Your task to perform on an android device: When is my next appointment? Image 0: 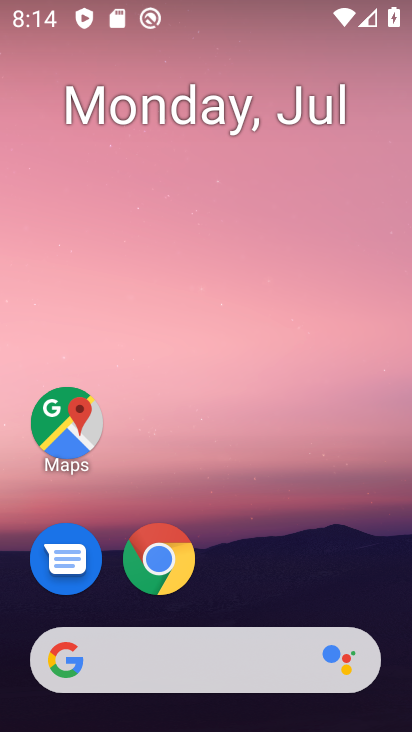
Step 0: drag from (354, 578) to (284, 52)
Your task to perform on an android device: When is my next appointment? Image 1: 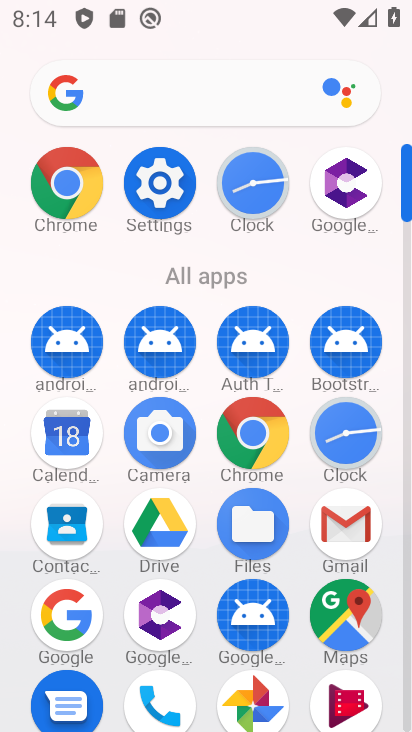
Step 1: click (51, 417)
Your task to perform on an android device: When is my next appointment? Image 2: 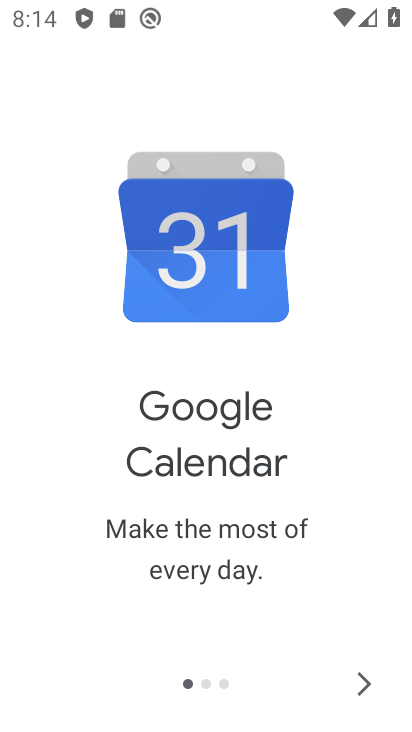
Step 2: click (362, 687)
Your task to perform on an android device: When is my next appointment? Image 3: 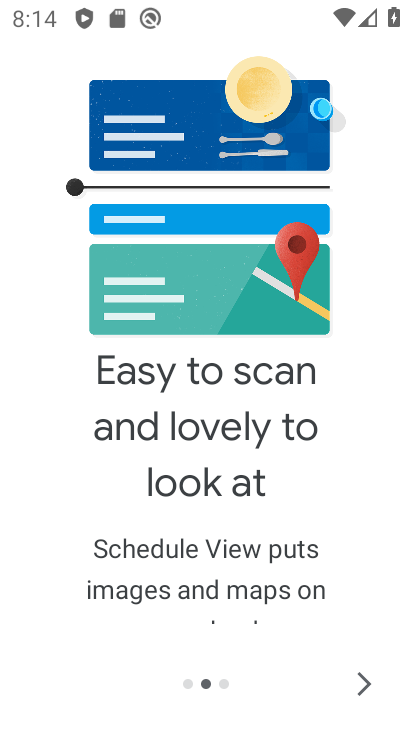
Step 3: click (362, 687)
Your task to perform on an android device: When is my next appointment? Image 4: 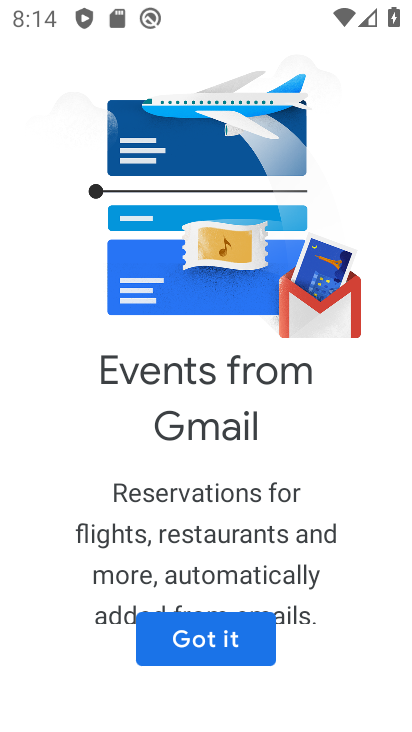
Step 4: click (213, 644)
Your task to perform on an android device: When is my next appointment? Image 5: 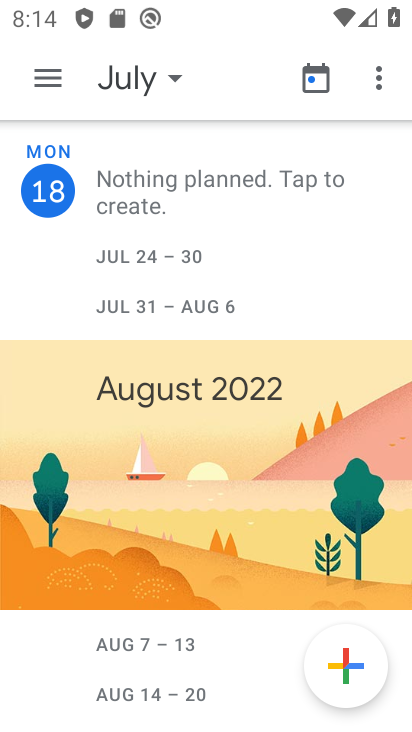
Step 5: click (59, 88)
Your task to perform on an android device: When is my next appointment? Image 6: 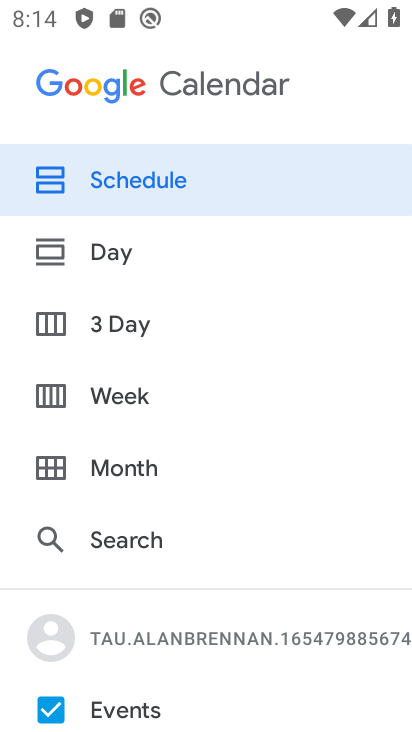
Step 6: click (110, 164)
Your task to perform on an android device: When is my next appointment? Image 7: 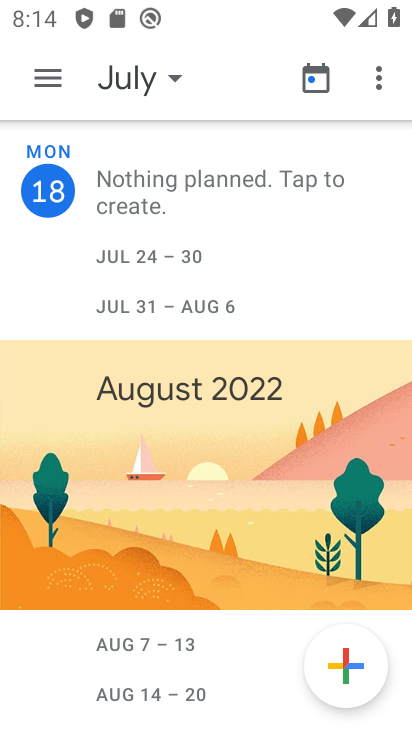
Step 7: task complete